Your task to perform on an android device: Search for Italian restaurants on Maps Image 0: 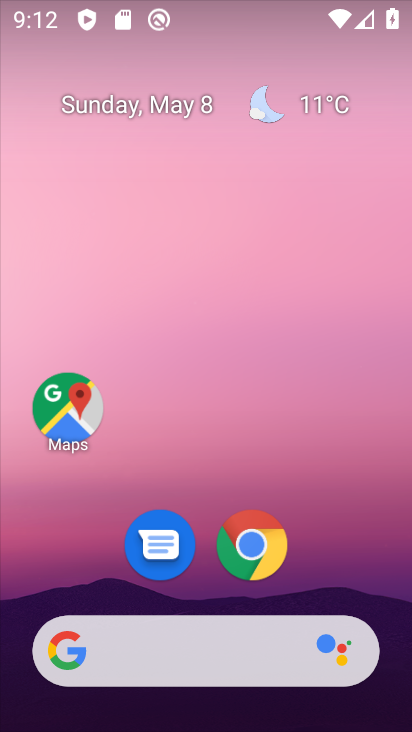
Step 0: click (89, 388)
Your task to perform on an android device: Search for Italian restaurants on Maps Image 1: 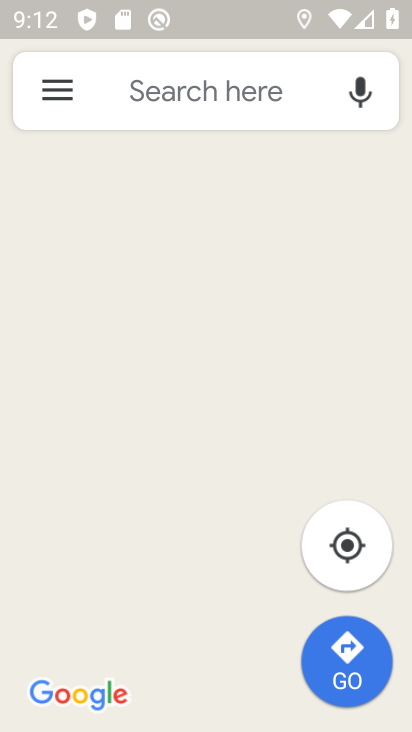
Step 1: click (216, 120)
Your task to perform on an android device: Search for Italian restaurants on Maps Image 2: 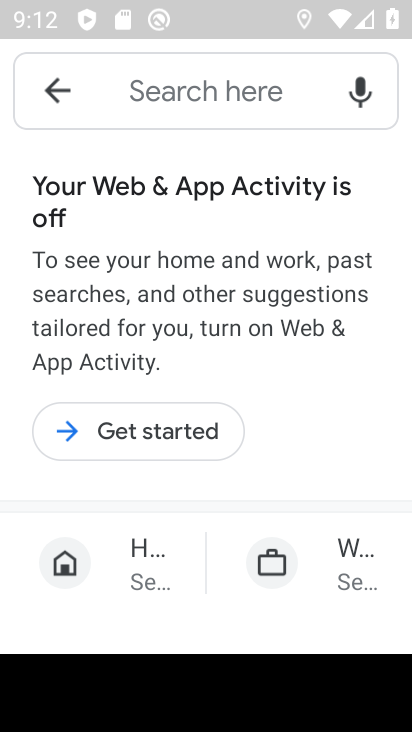
Step 2: click (145, 413)
Your task to perform on an android device: Search for Italian restaurants on Maps Image 3: 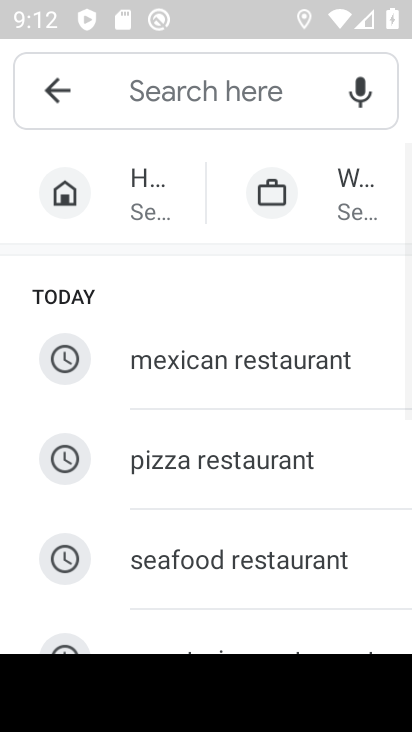
Step 3: drag from (228, 498) to (206, 46)
Your task to perform on an android device: Search for Italian restaurants on Maps Image 4: 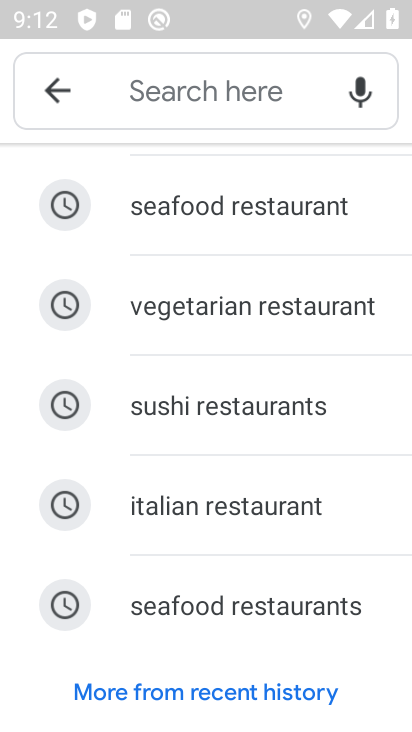
Step 4: click (212, 485)
Your task to perform on an android device: Search for Italian restaurants on Maps Image 5: 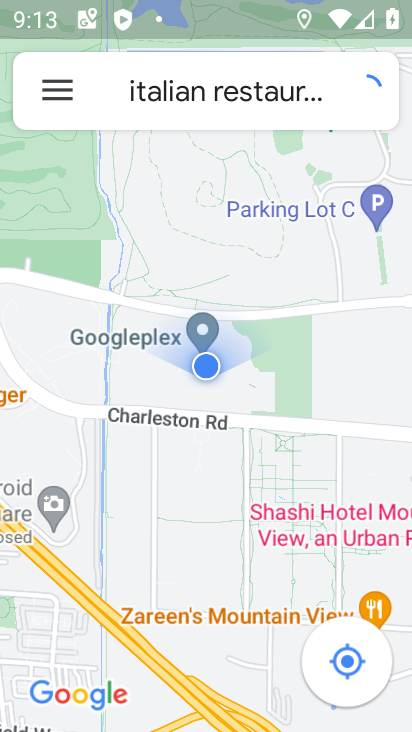
Step 5: task complete